Your task to perform on an android device: empty trash in the gmail app Image 0: 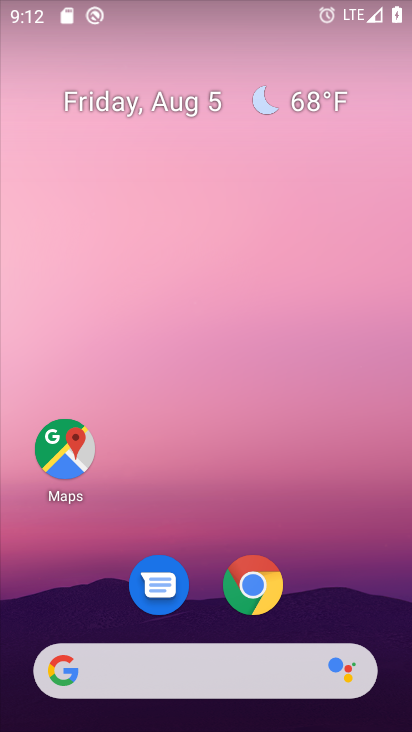
Step 0: drag from (189, 513) to (239, 16)
Your task to perform on an android device: empty trash in the gmail app Image 1: 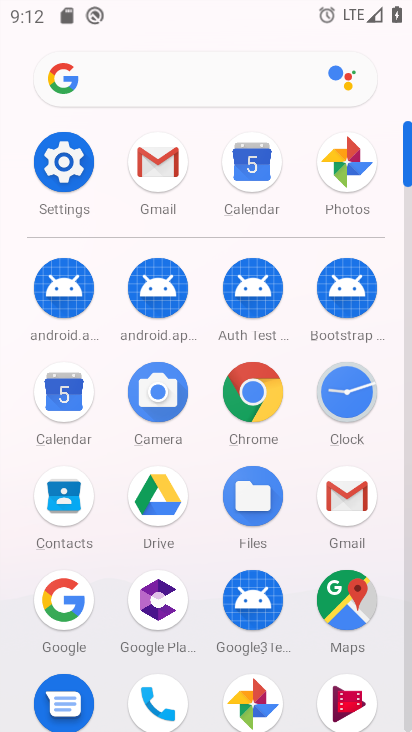
Step 1: click (165, 168)
Your task to perform on an android device: empty trash in the gmail app Image 2: 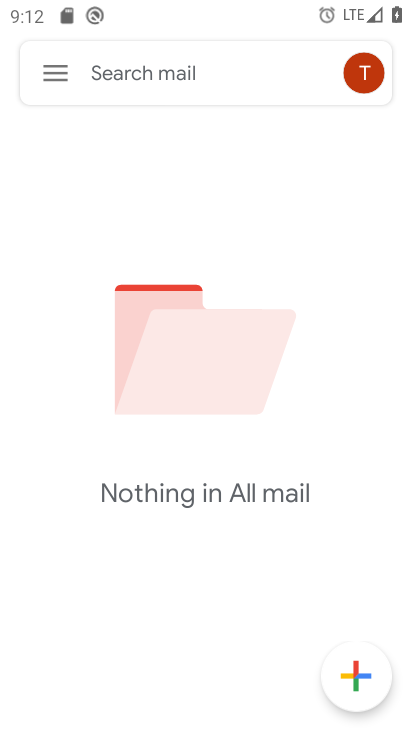
Step 2: click (55, 74)
Your task to perform on an android device: empty trash in the gmail app Image 3: 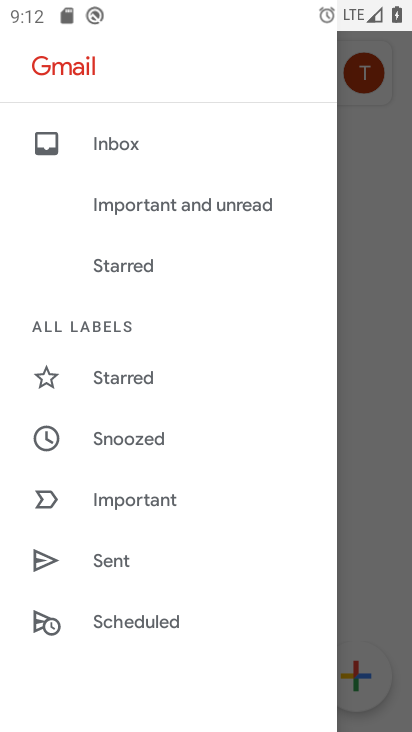
Step 3: drag from (154, 523) to (198, 34)
Your task to perform on an android device: empty trash in the gmail app Image 4: 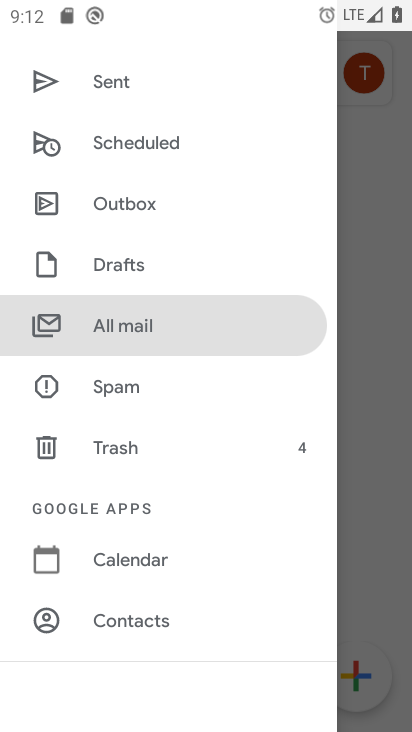
Step 4: click (144, 442)
Your task to perform on an android device: empty trash in the gmail app Image 5: 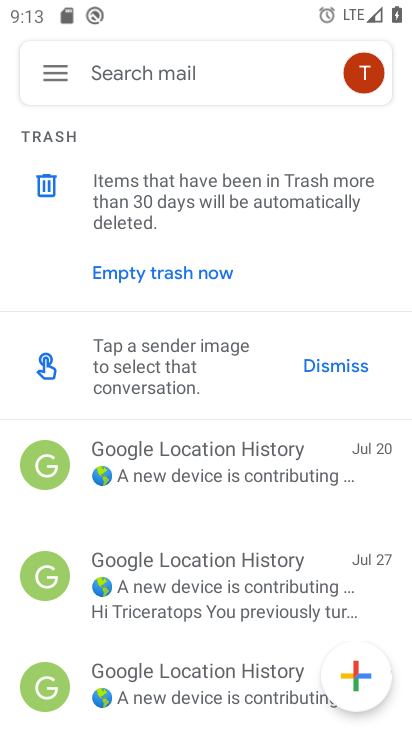
Step 5: drag from (164, 544) to (239, 133)
Your task to perform on an android device: empty trash in the gmail app Image 6: 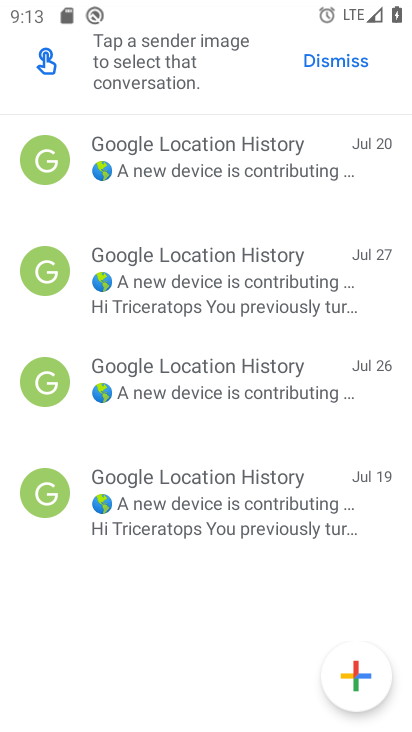
Step 6: drag from (240, 194) to (235, 598)
Your task to perform on an android device: empty trash in the gmail app Image 7: 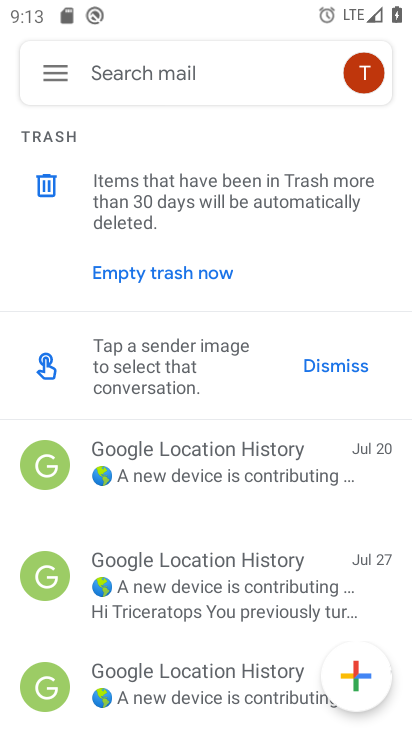
Step 7: click (209, 266)
Your task to perform on an android device: empty trash in the gmail app Image 8: 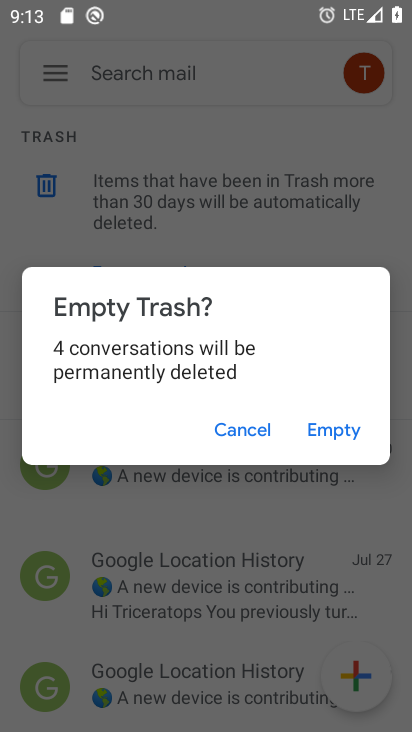
Step 8: click (327, 419)
Your task to perform on an android device: empty trash in the gmail app Image 9: 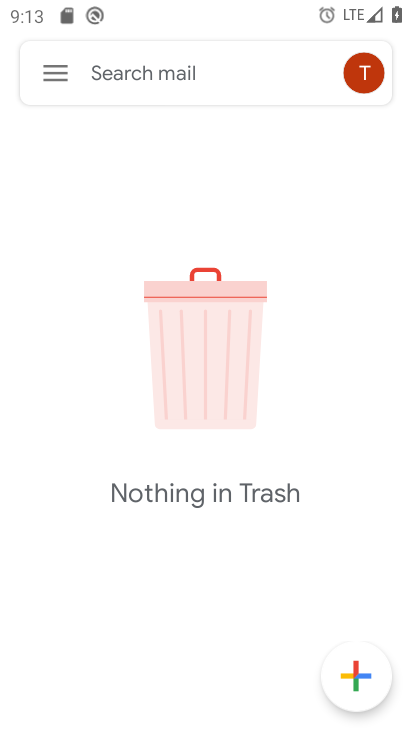
Step 9: task complete